Your task to perform on an android device: empty trash in the gmail app Image 0: 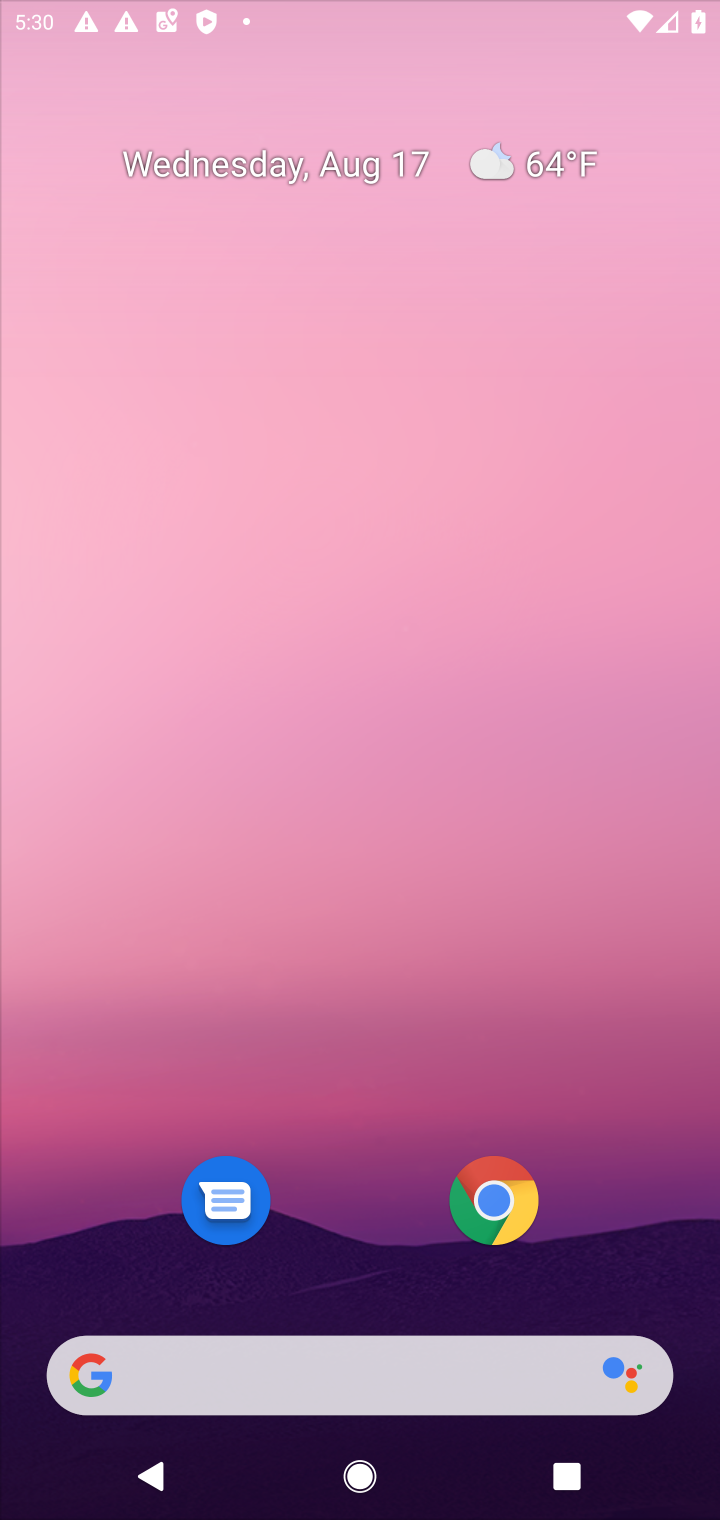
Step 0: press home button
Your task to perform on an android device: empty trash in the gmail app Image 1: 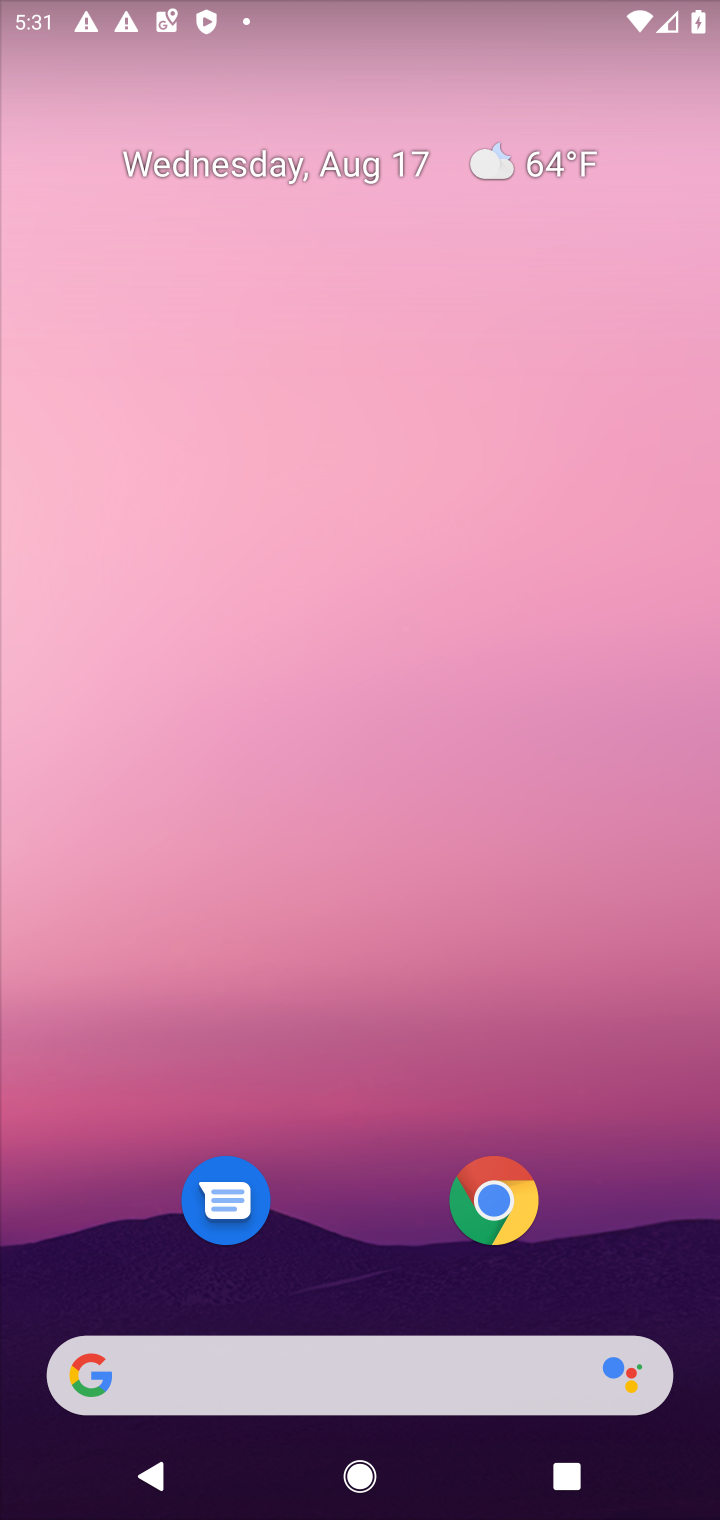
Step 1: drag from (369, 906) to (403, 63)
Your task to perform on an android device: empty trash in the gmail app Image 2: 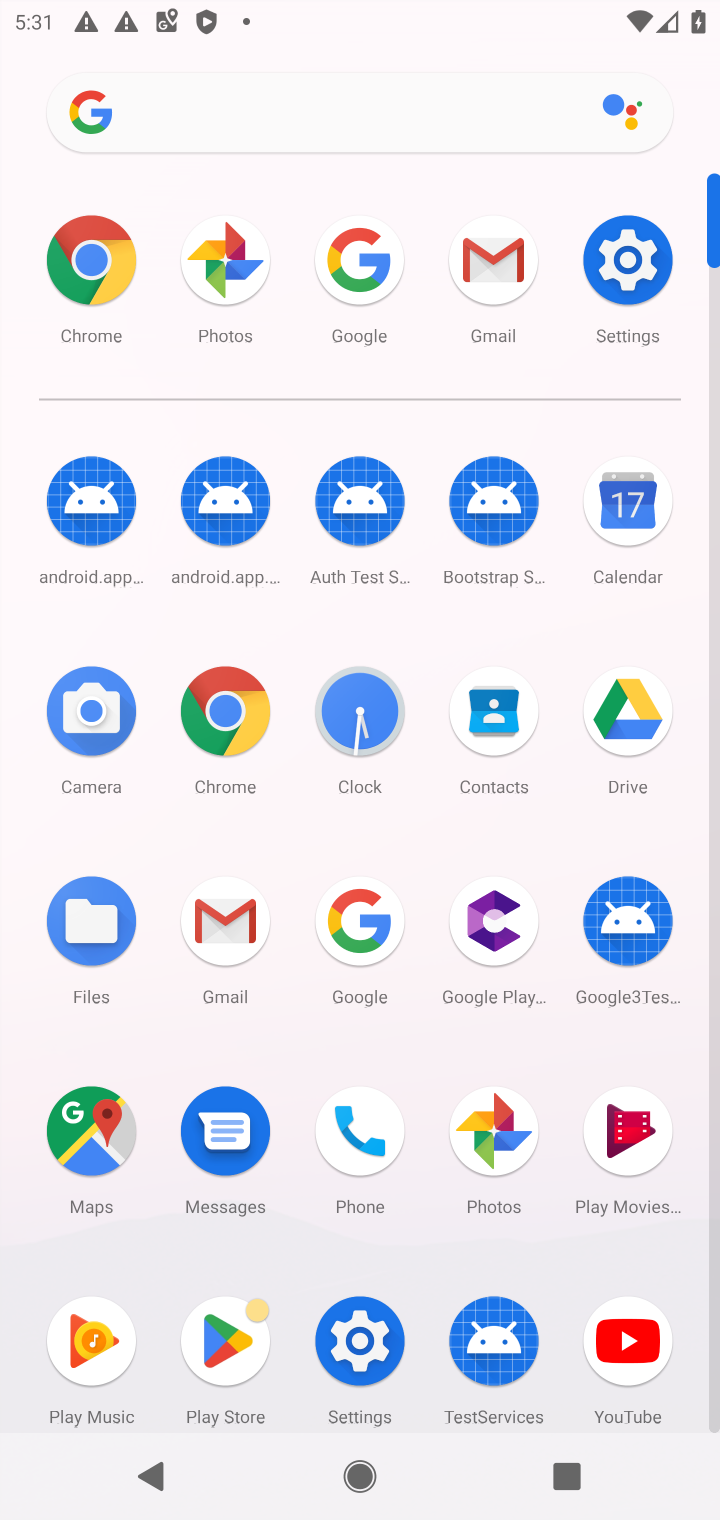
Step 2: click (220, 907)
Your task to perform on an android device: empty trash in the gmail app Image 3: 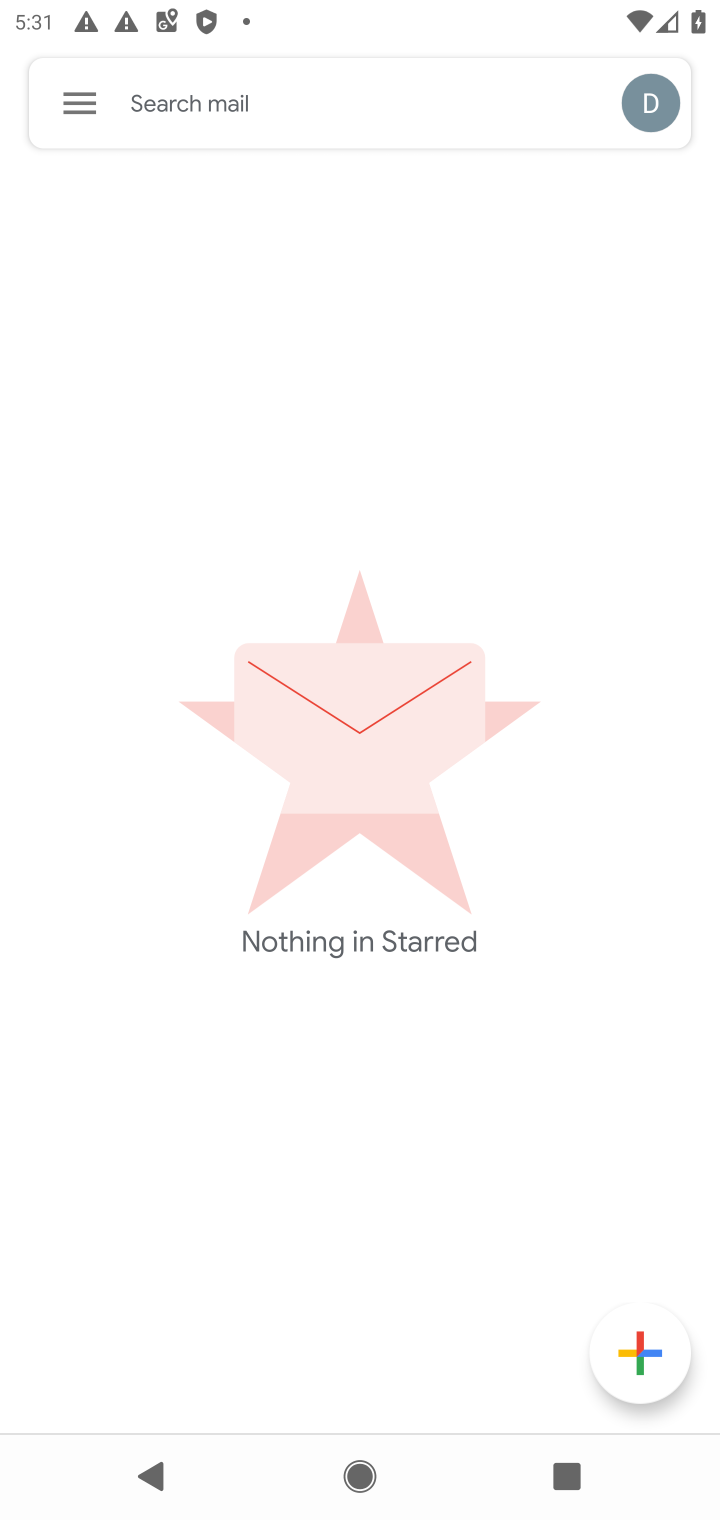
Step 3: click (85, 105)
Your task to perform on an android device: empty trash in the gmail app Image 4: 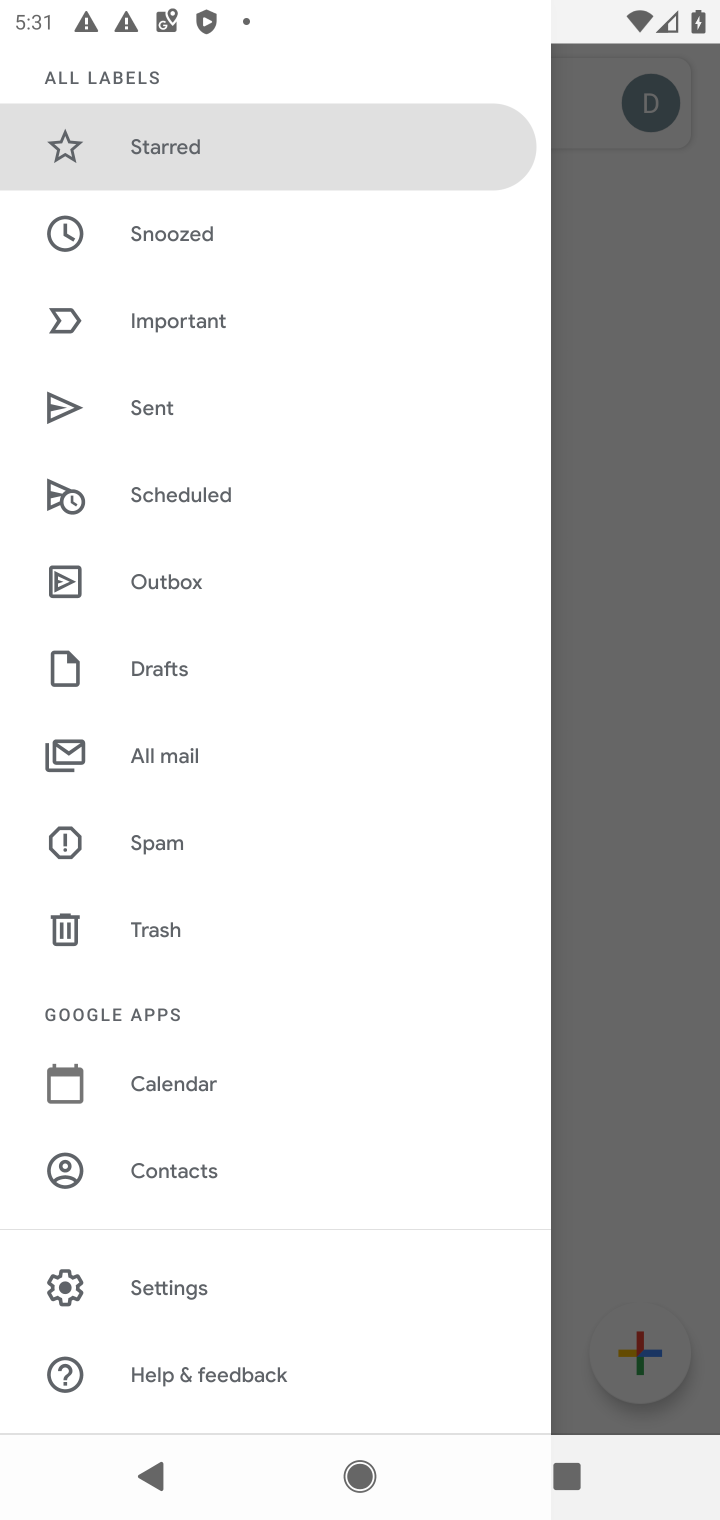
Step 4: click (157, 933)
Your task to perform on an android device: empty trash in the gmail app Image 5: 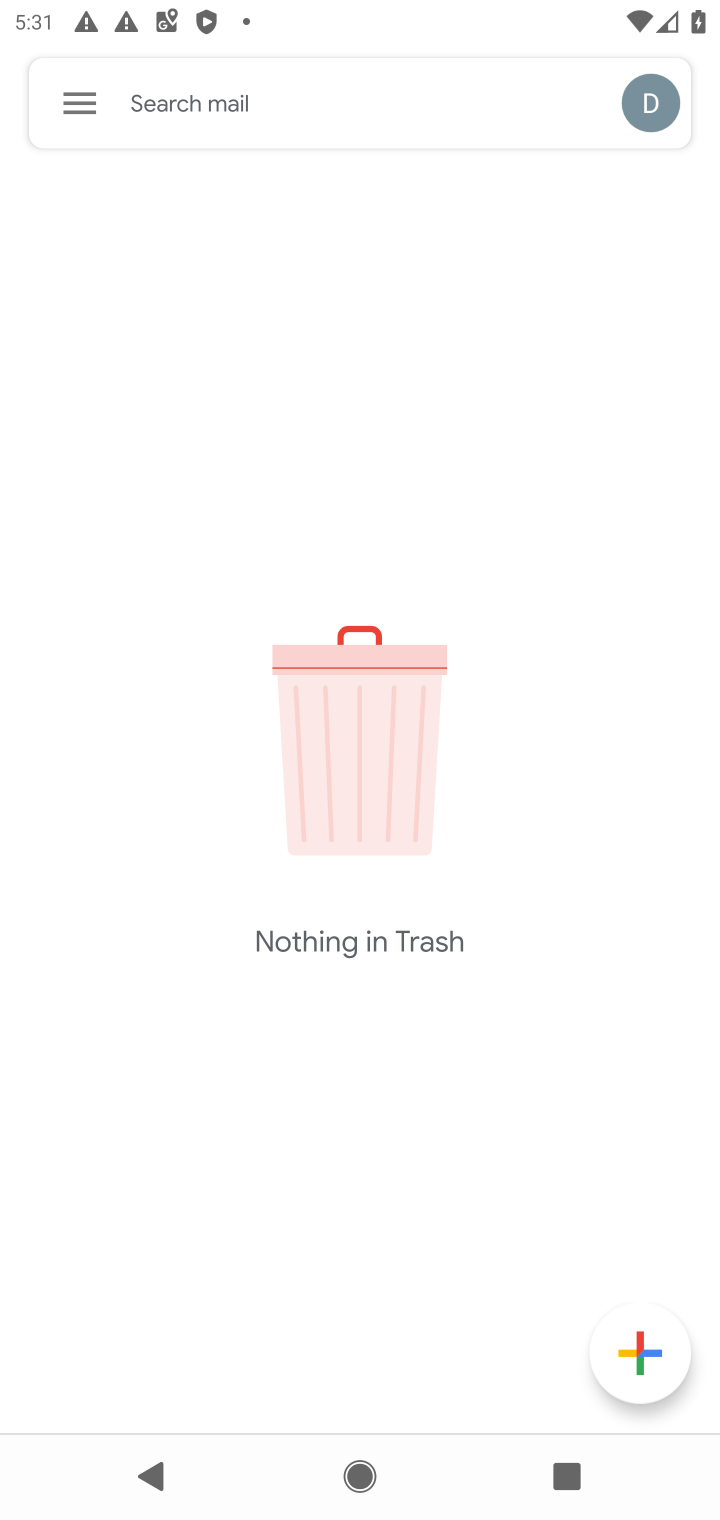
Step 5: task complete